Your task to perform on an android device: Search for flights from NYC to Buenos aires Image 0: 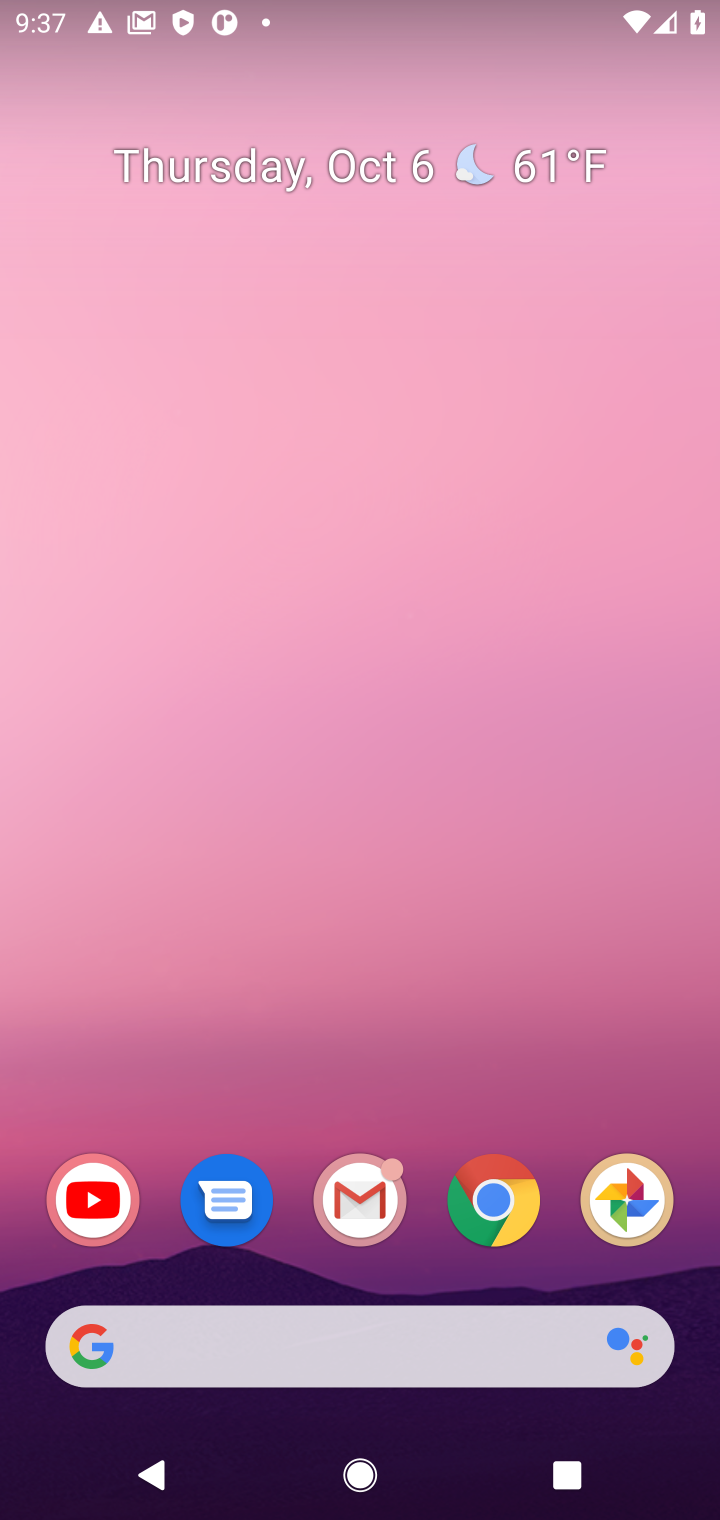
Step 0: drag from (216, 865) to (288, 302)
Your task to perform on an android device: Search for flights from NYC to Buenos aires Image 1: 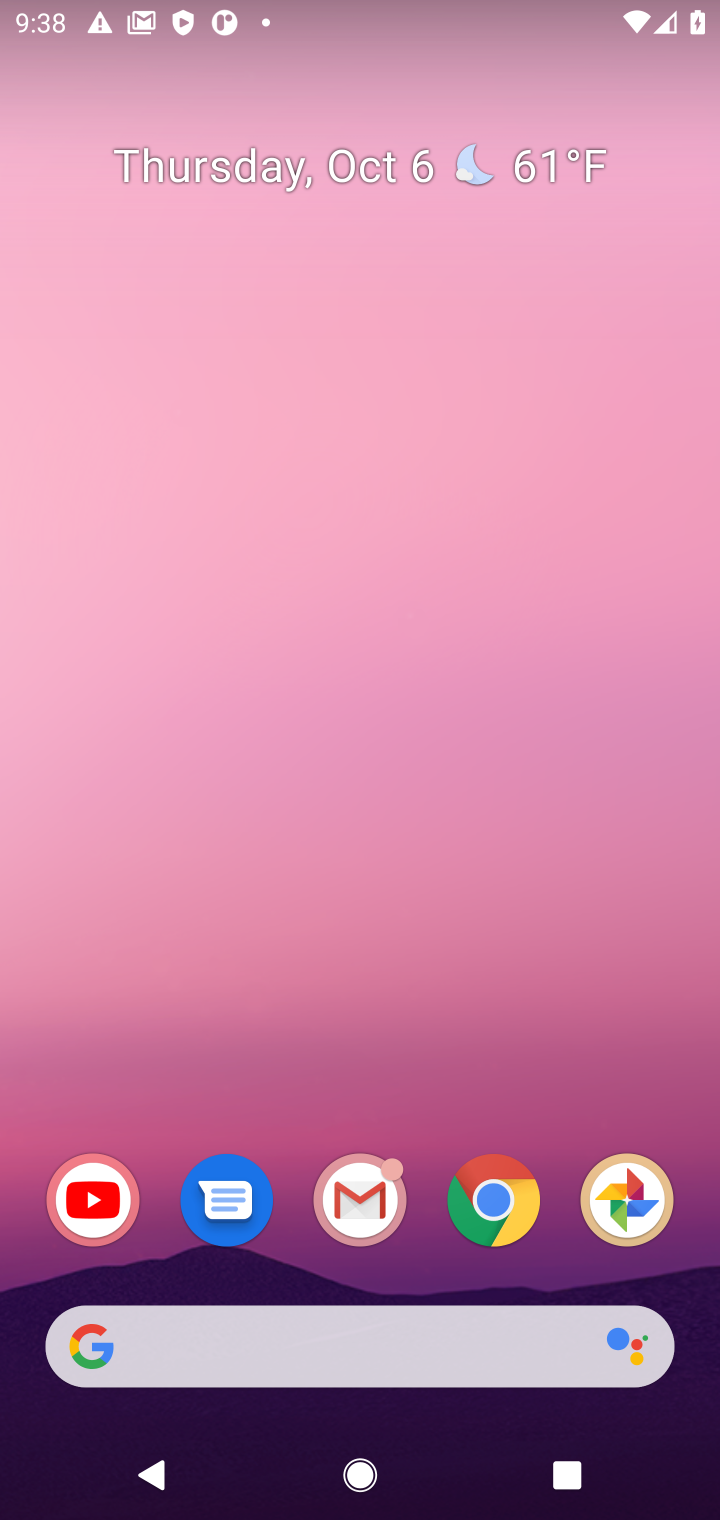
Step 1: drag from (306, 1297) to (293, 193)
Your task to perform on an android device: Search for flights from NYC to Buenos aires Image 2: 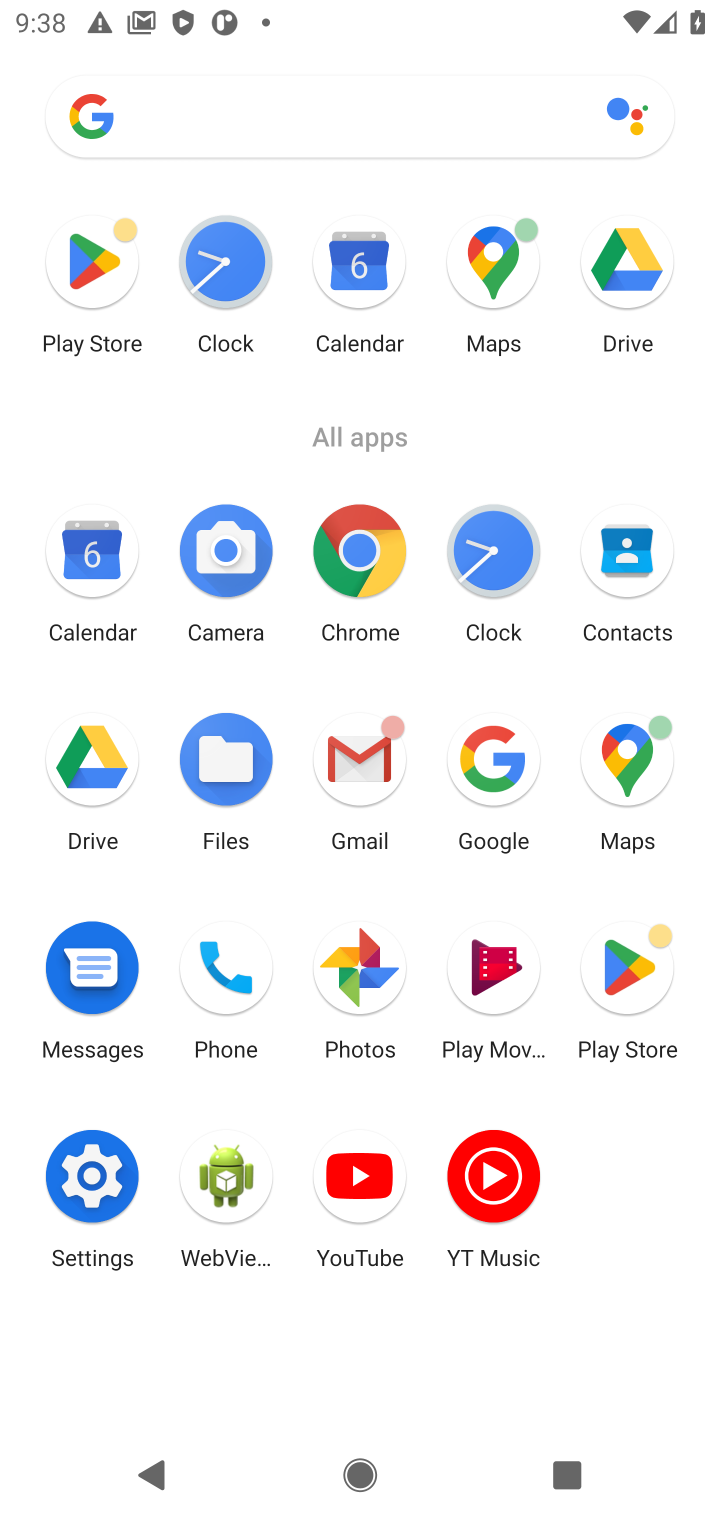
Step 2: click (496, 763)
Your task to perform on an android device: Search for flights from NYC to Buenos aires Image 3: 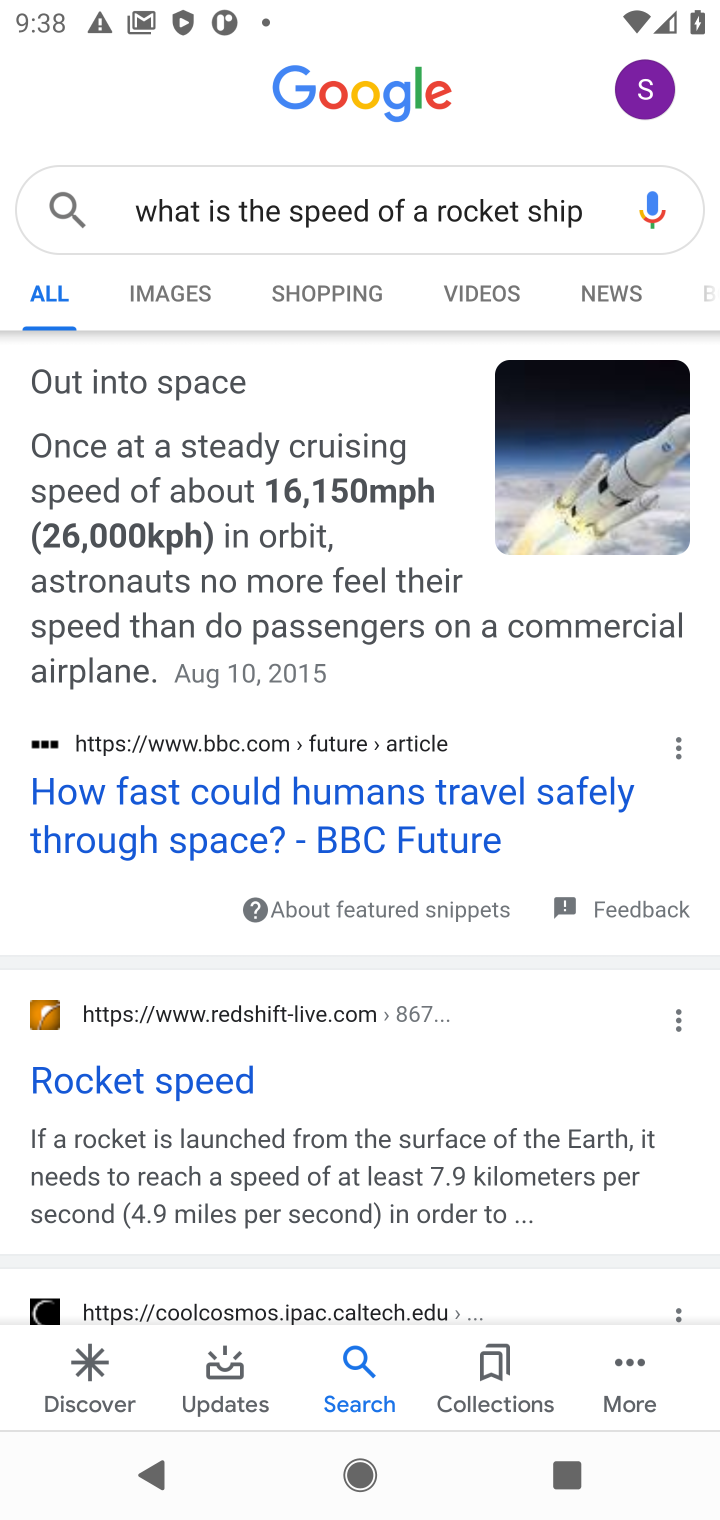
Step 3: click (433, 191)
Your task to perform on an android device: Search for flights from NYC to Buenos aires Image 4: 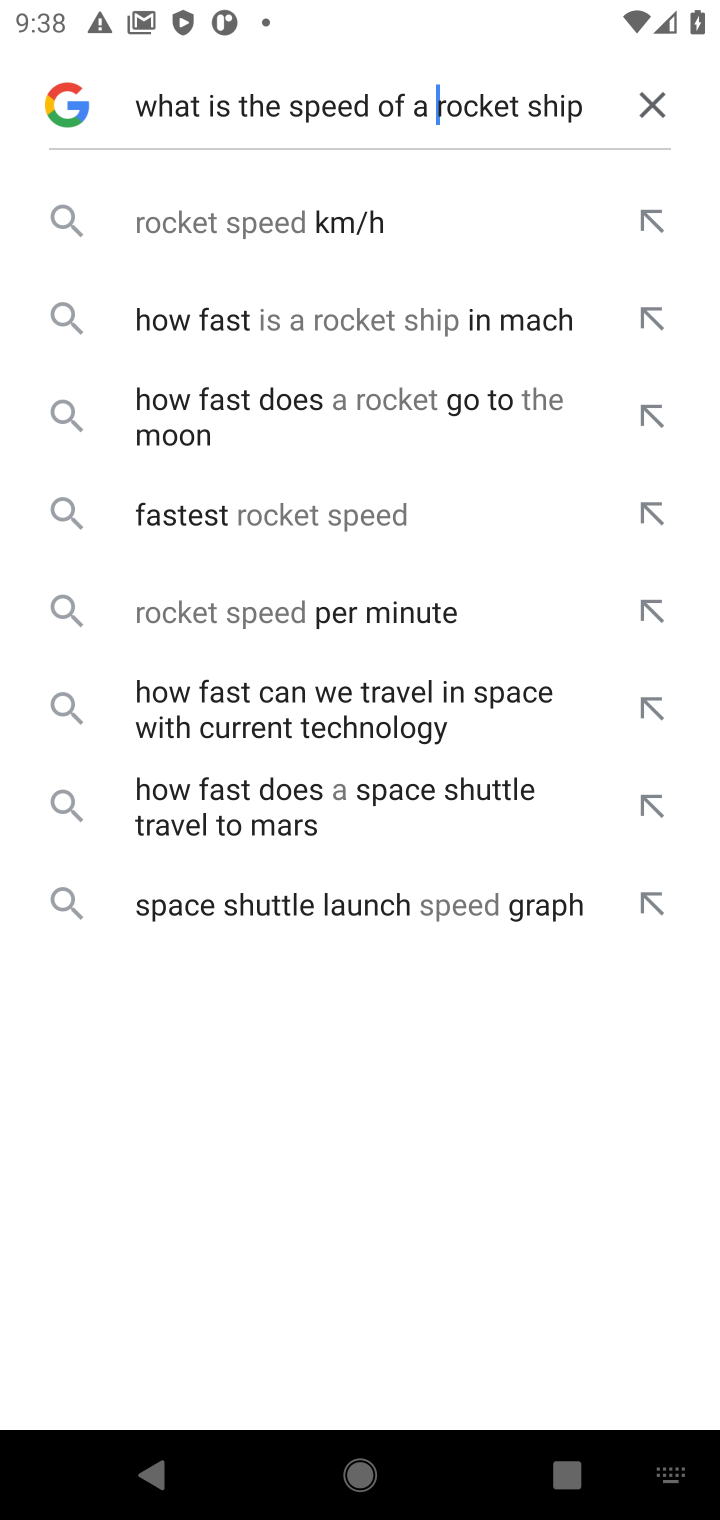
Step 4: click (662, 104)
Your task to perform on an android device: Search for flights from NYC to Buenos aires Image 5: 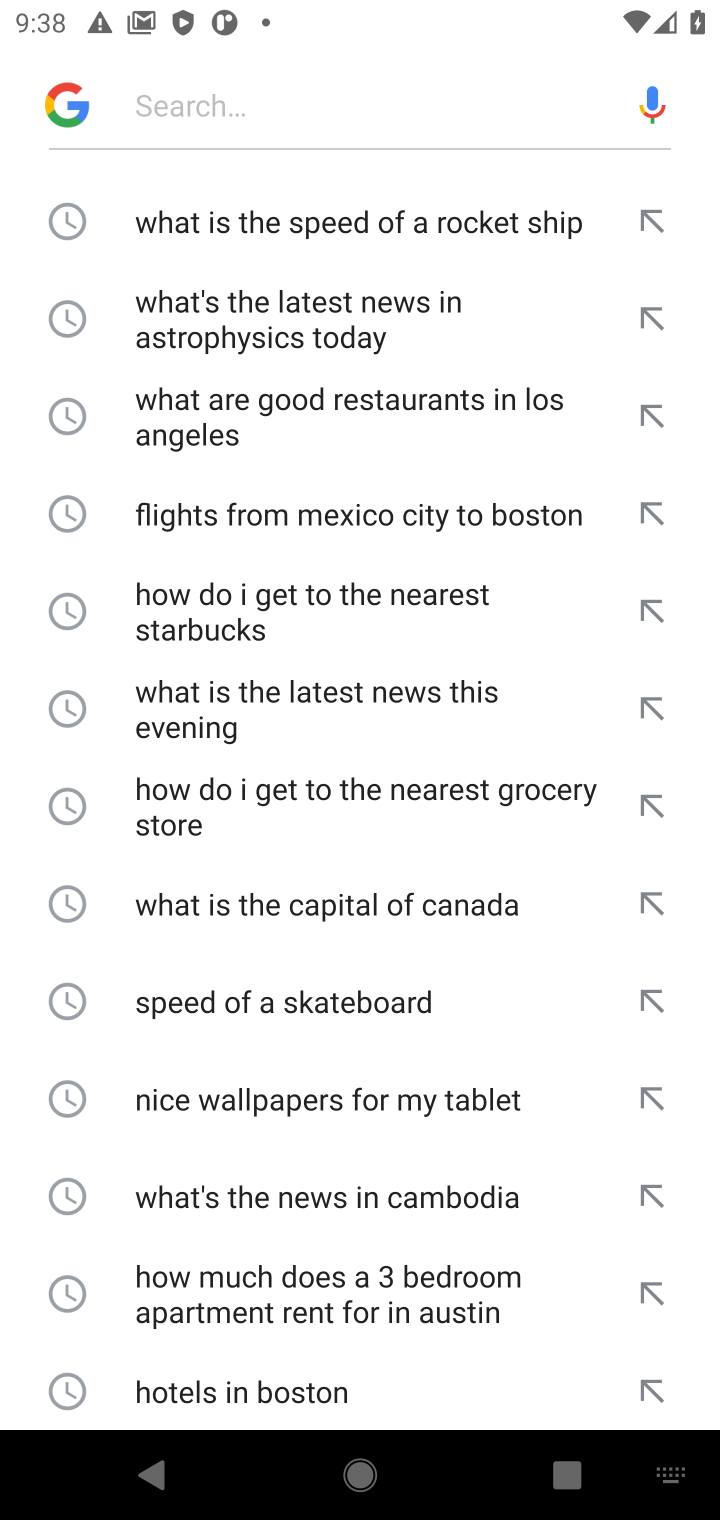
Step 5: type "Search for flights from NYC to Buenos aires"
Your task to perform on an android device: Search for flights from NYC to Buenos aires Image 6: 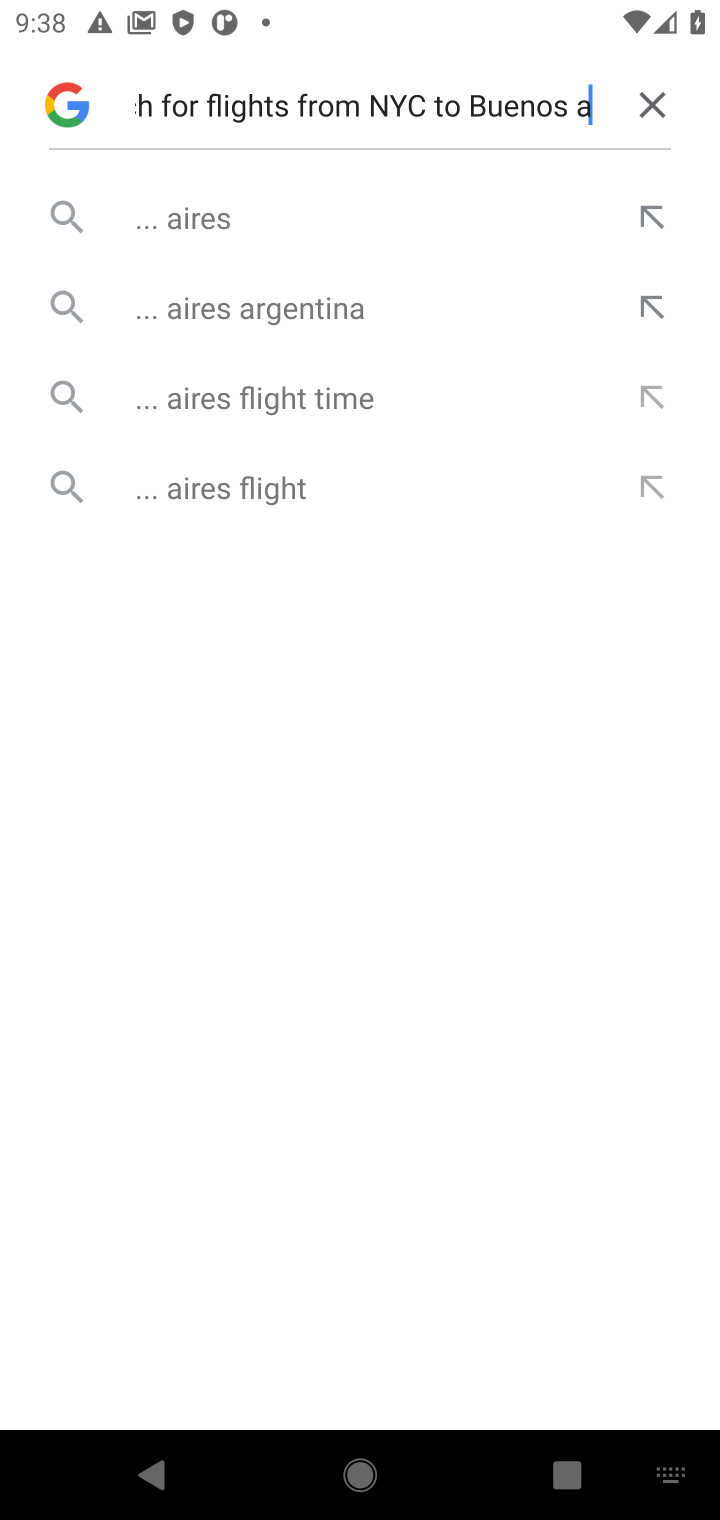
Step 6: click (216, 231)
Your task to perform on an android device: Search for flights from NYC to Buenos aires Image 7: 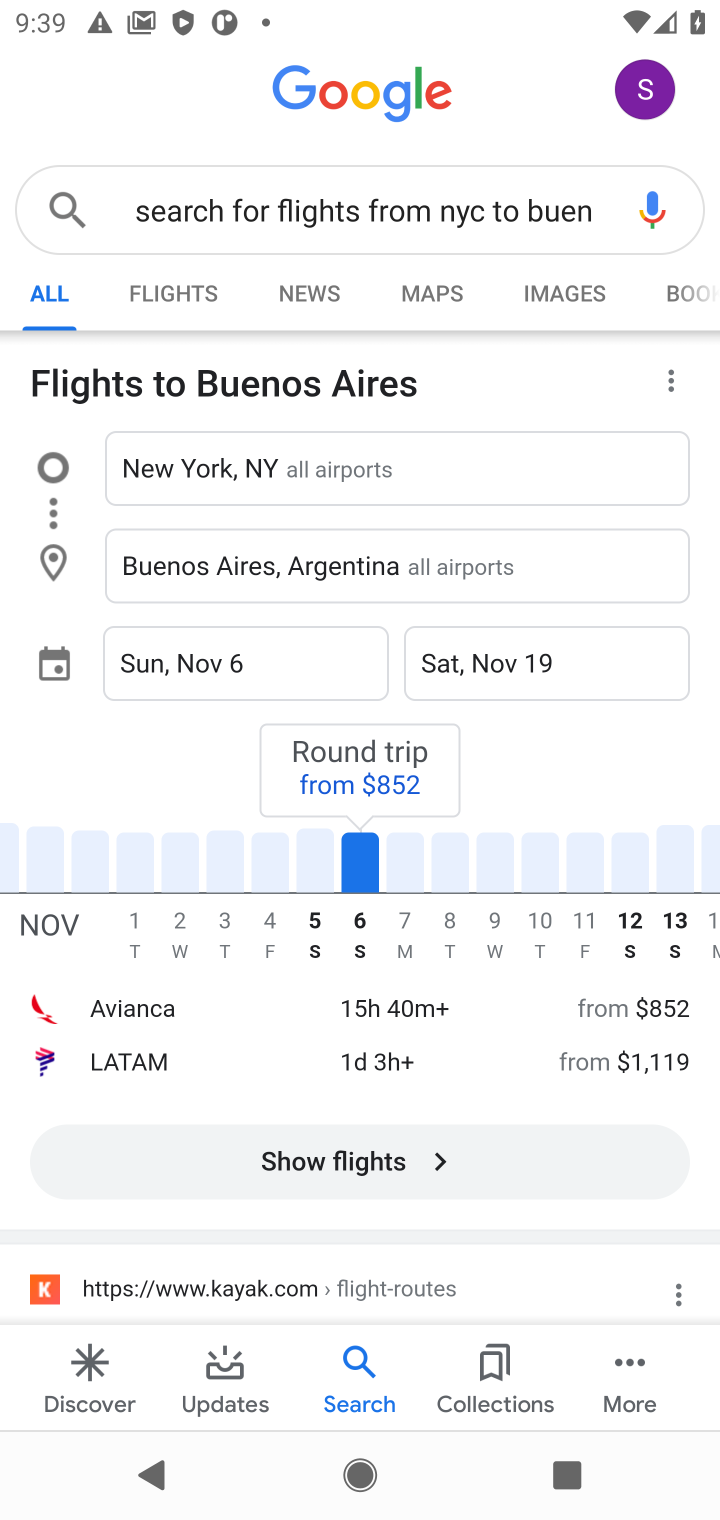
Step 7: task complete